Your task to perform on an android device: choose inbox layout in the gmail app Image 0: 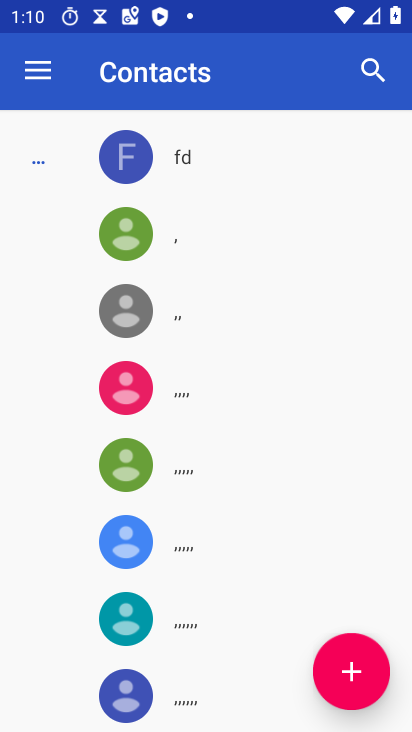
Step 0: press home button
Your task to perform on an android device: choose inbox layout in the gmail app Image 1: 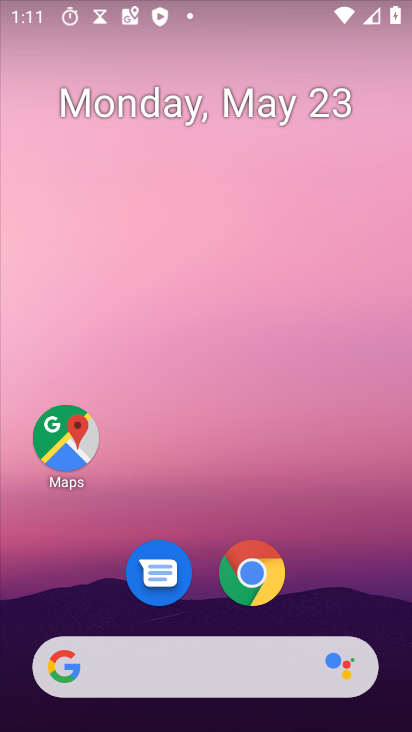
Step 1: drag from (175, 686) to (303, 131)
Your task to perform on an android device: choose inbox layout in the gmail app Image 2: 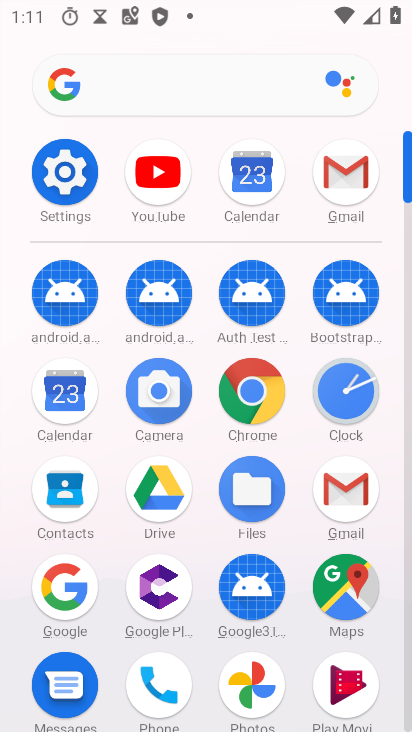
Step 2: click (344, 196)
Your task to perform on an android device: choose inbox layout in the gmail app Image 3: 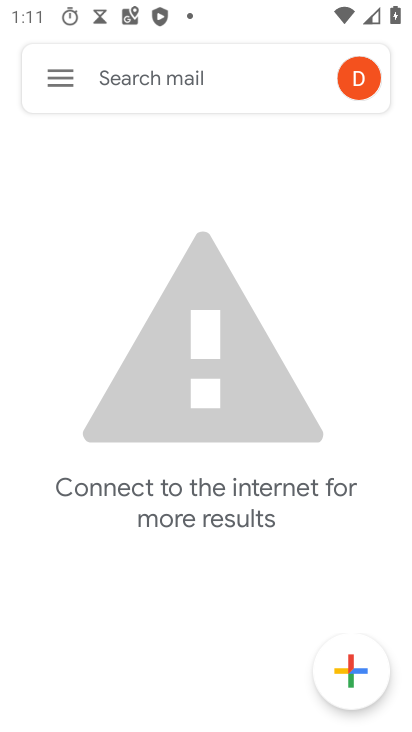
Step 3: click (54, 75)
Your task to perform on an android device: choose inbox layout in the gmail app Image 4: 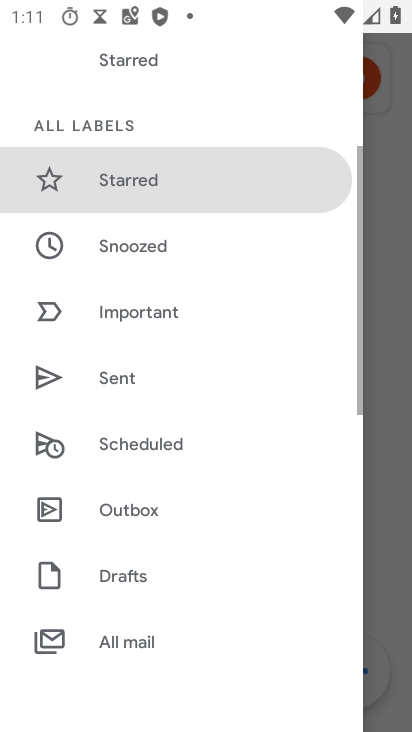
Step 4: drag from (175, 638) to (291, 130)
Your task to perform on an android device: choose inbox layout in the gmail app Image 5: 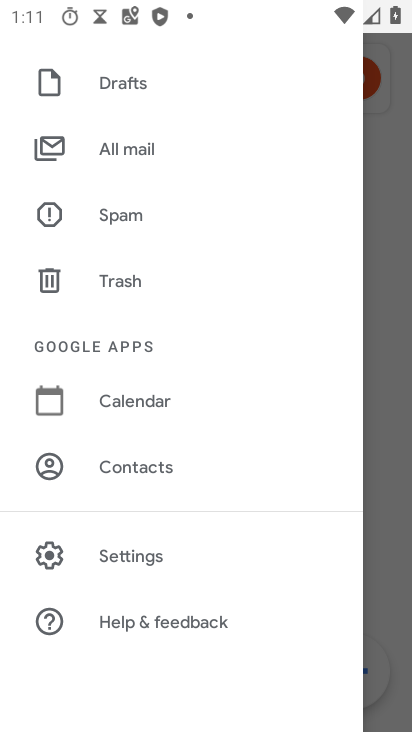
Step 5: click (154, 563)
Your task to perform on an android device: choose inbox layout in the gmail app Image 6: 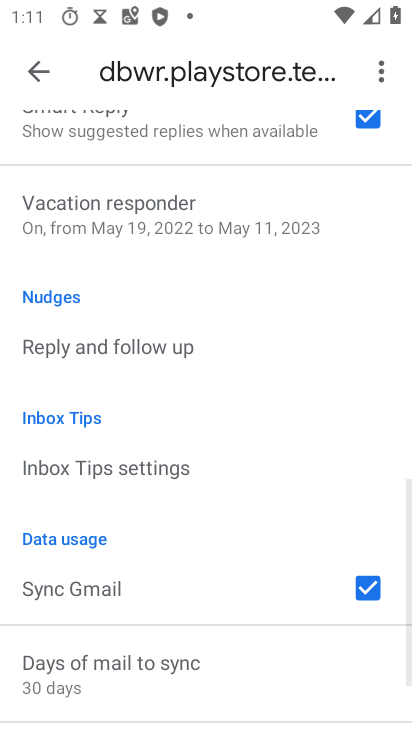
Step 6: drag from (310, 194) to (251, 638)
Your task to perform on an android device: choose inbox layout in the gmail app Image 7: 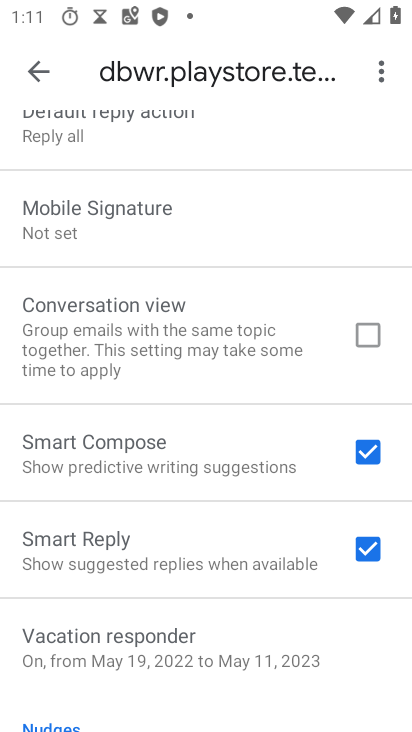
Step 7: drag from (258, 270) to (216, 712)
Your task to perform on an android device: choose inbox layout in the gmail app Image 8: 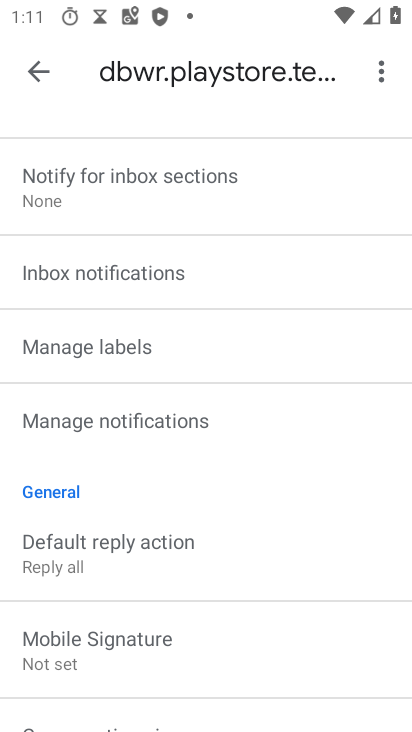
Step 8: drag from (293, 233) to (272, 564)
Your task to perform on an android device: choose inbox layout in the gmail app Image 9: 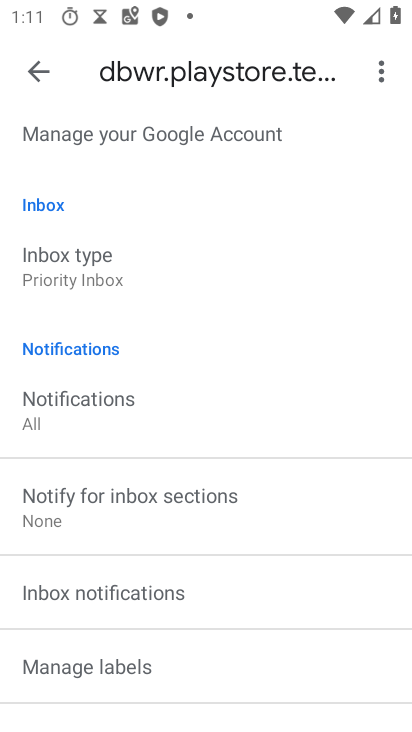
Step 9: click (76, 277)
Your task to perform on an android device: choose inbox layout in the gmail app Image 10: 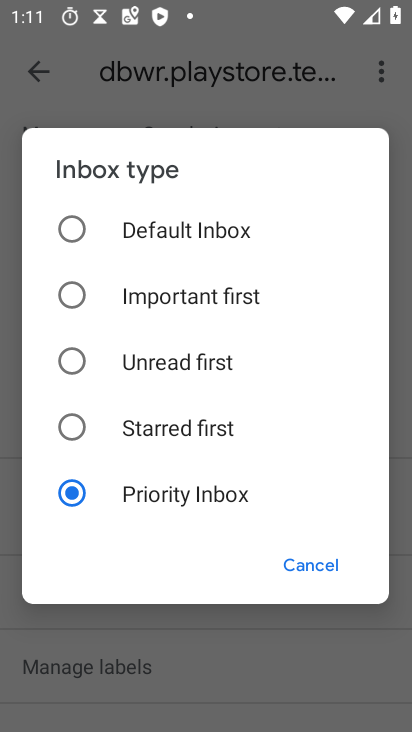
Step 10: click (69, 291)
Your task to perform on an android device: choose inbox layout in the gmail app Image 11: 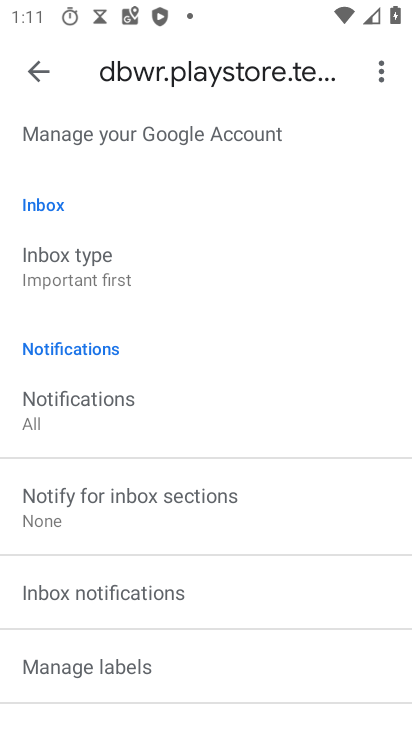
Step 11: task complete